Your task to perform on an android device: change timer sound Image 0: 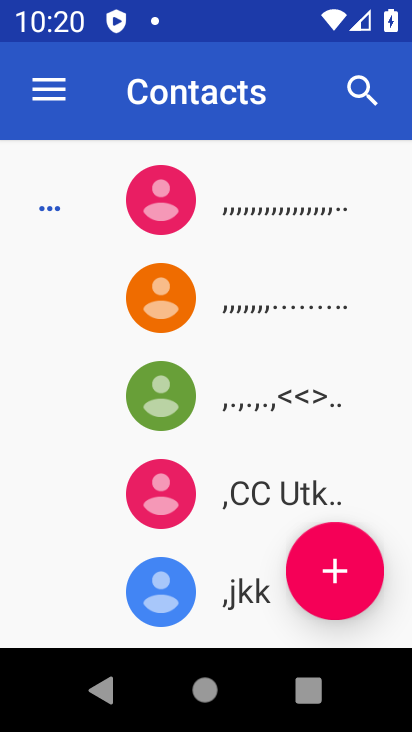
Step 0: press back button
Your task to perform on an android device: change timer sound Image 1: 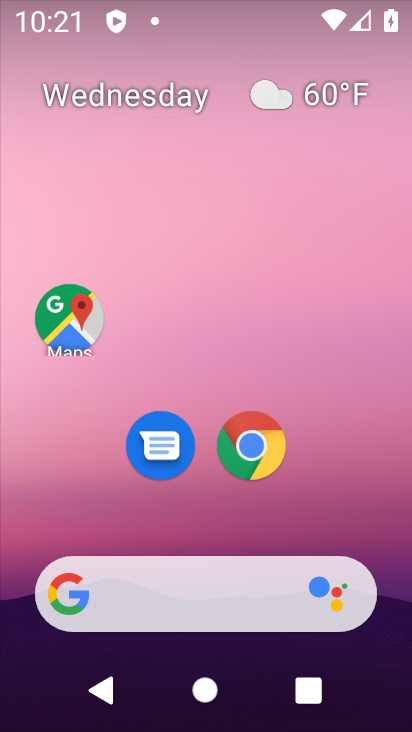
Step 1: drag from (204, 497) to (211, 211)
Your task to perform on an android device: change timer sound Image 2: 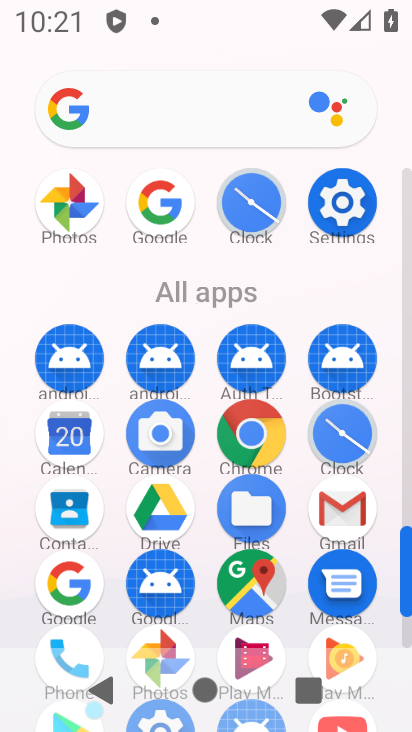
Step 2: click (256, 207)
Your task to perform on an android device: change timer sound Image 3: 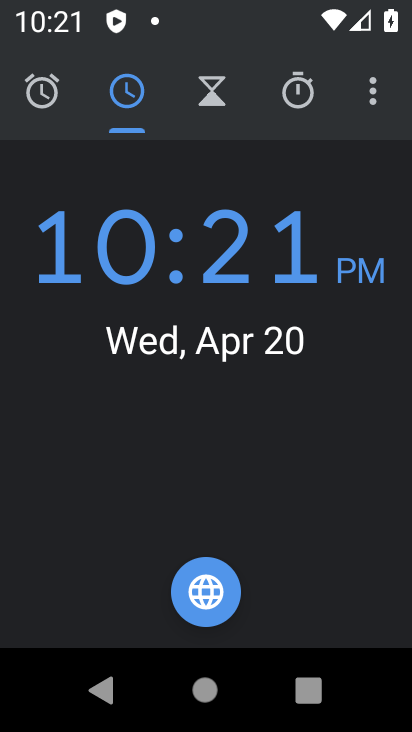
Step 3: click (369, 90)
Your task to perform on an android device: change timer sound Image 4: 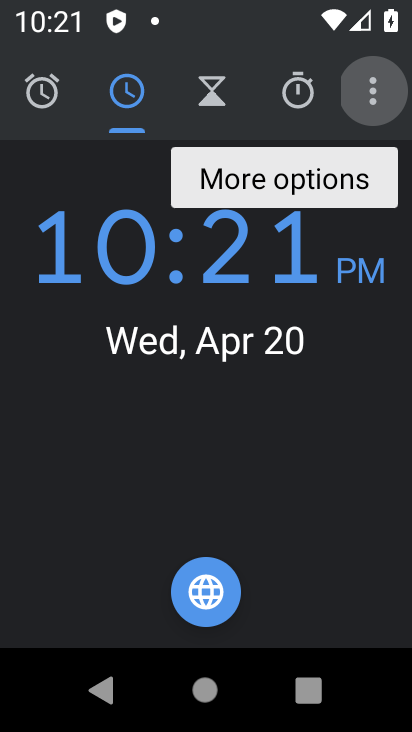
Step 4: click (368, 103)
Your task to perform on an android device: change timer sound Image 5: 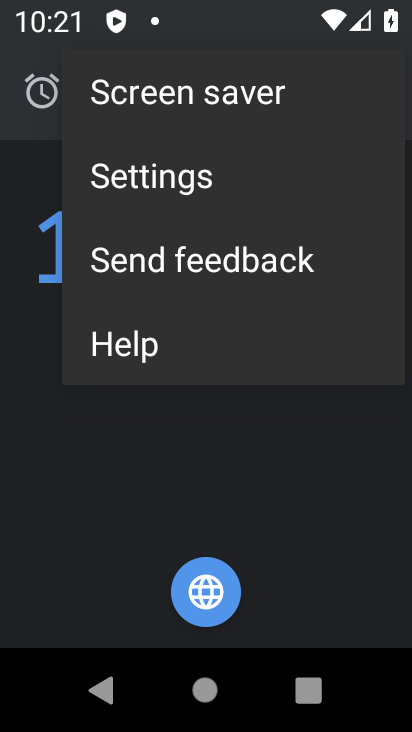
Step 5: click (173, 177)
Your task to perform on an android device: change timer sound Image 6: 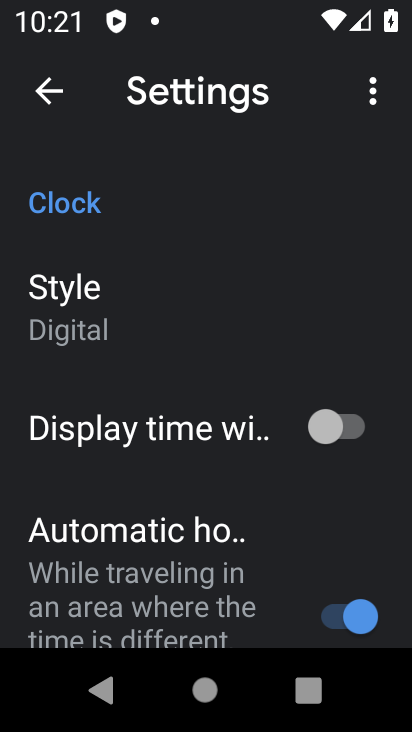
Step 6: drag from (210, 583) to (235, 259)
Your task to perform on an android device: change timer sound Image 7: 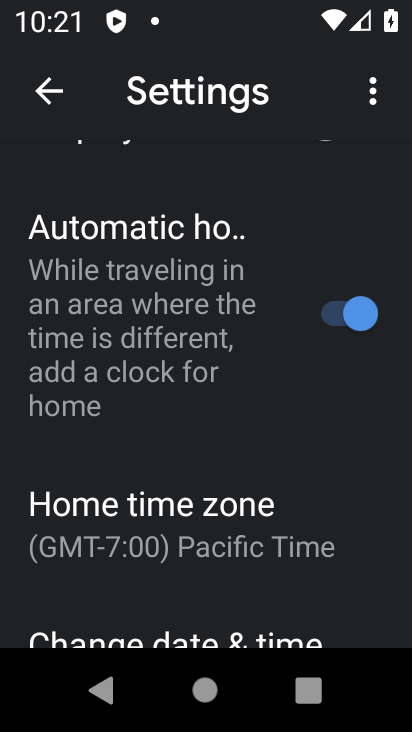
Step 7: drag from (223, 518) to (238, 162)
Your task to perform on an android device: change timer sound Image 8: 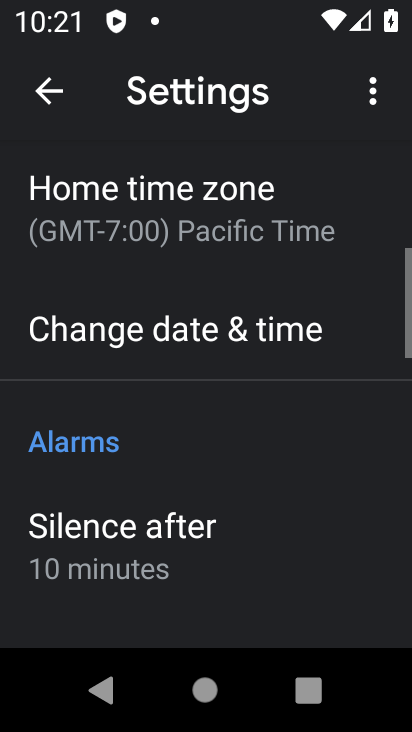
Step 8: drag from (209, 474) to (239, 231)
Your task to perform on an android device: change timer sound Image 9: 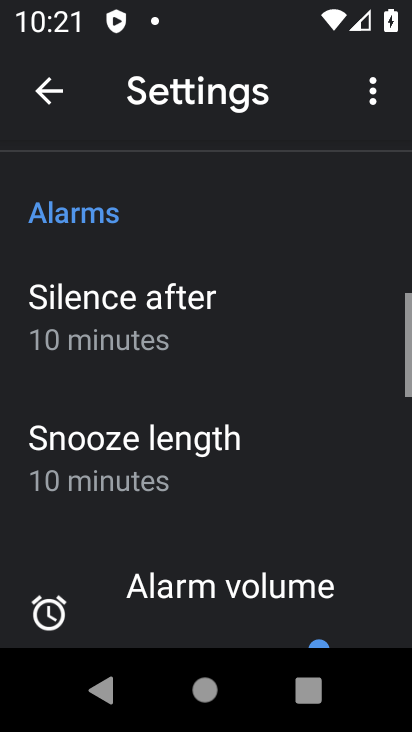
Step 9: drag from (231, 540) to (284, 250)
Your task to perform on an android device: change timer sound Image 10: 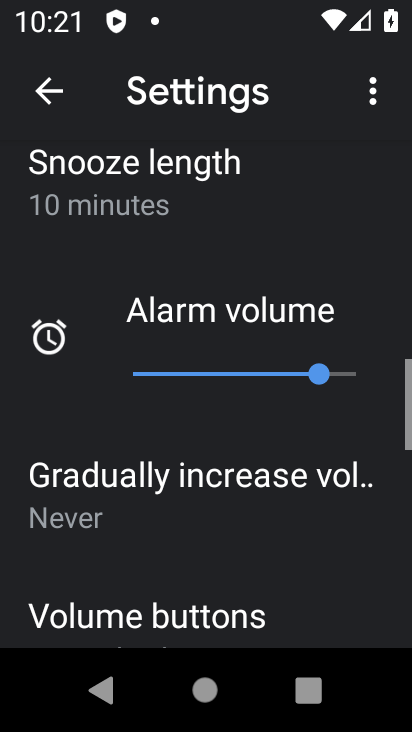
Step 10: drag from (248, 548) to (267, 293)
Your task to perform on an android device: change timer sound Image 11: 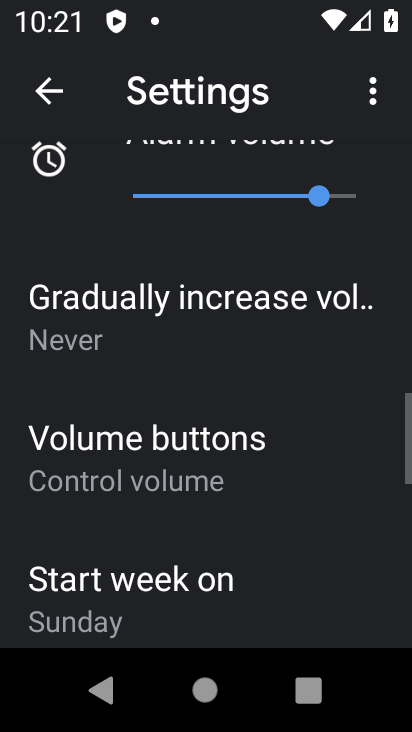
Step 11: drag from (267, 293) to (249, 576)
Your task to perform on an android device: change timer sound Image 12: 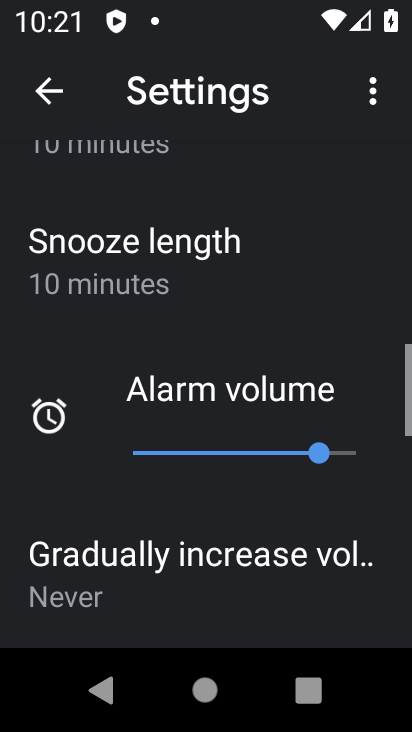
Step 12: drag from (238, 269) to (234, 514)
Your task to perform on an android device: change timer sound Image 13: 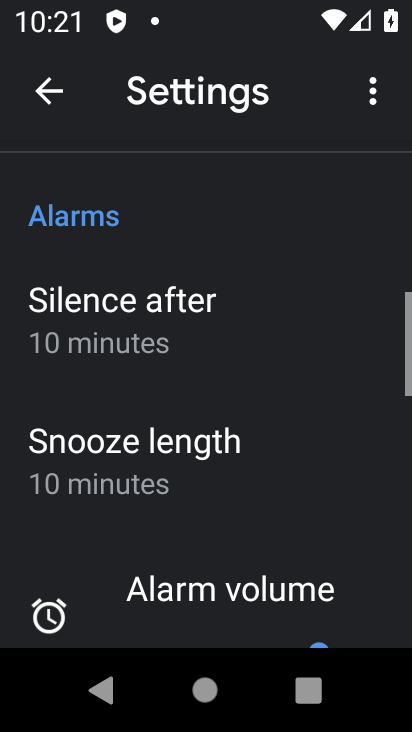
Step 13: drag from (229, 254) to (237, 491)
Your task to perform on an android device: change timer sound Image 14: 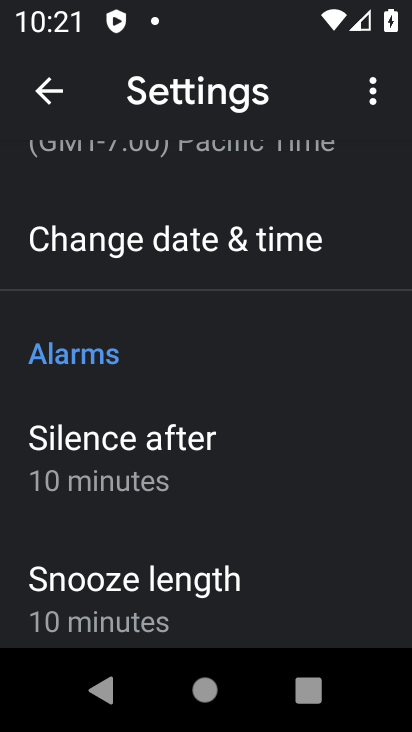
Step 14: drag from (253, 520) to (273, 181)
Your task to perform on an android device: change timer sound Image 15: 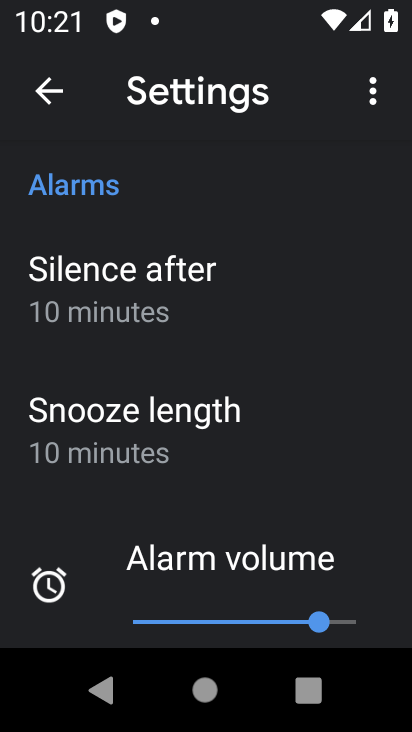
Step 15: drag from (269, 498) to (294, 212)
Your task to perform on an android device: change timer sound Image 16: 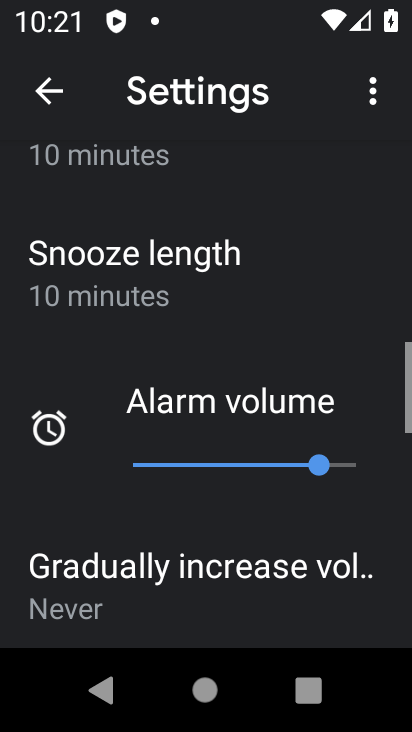
Step 16: drag from (285, 553) to (301, 275)
Your task to perform on an android device: change timer sound Image 17: 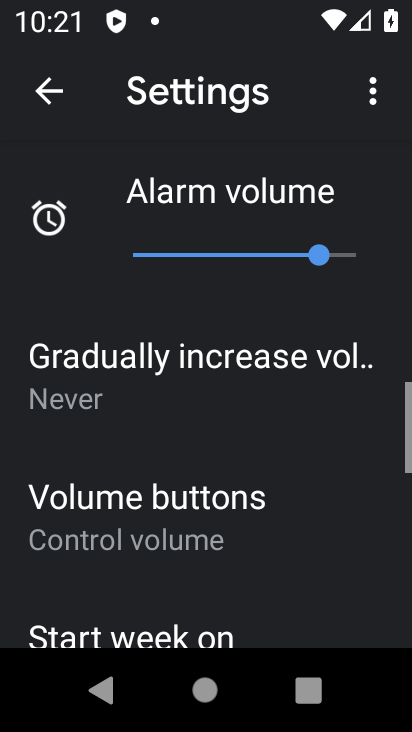
Step 17: drag from (296, 513) to (310, 256)
Your task to perform on an android device: change timer sound Image 18: 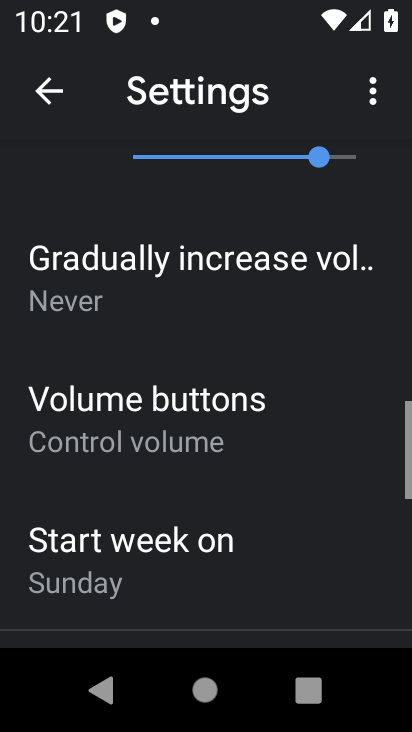
Step 18: drag from (276, 534) to (282, 250)
Your task to perform on an android device: change timer sound Image 19: 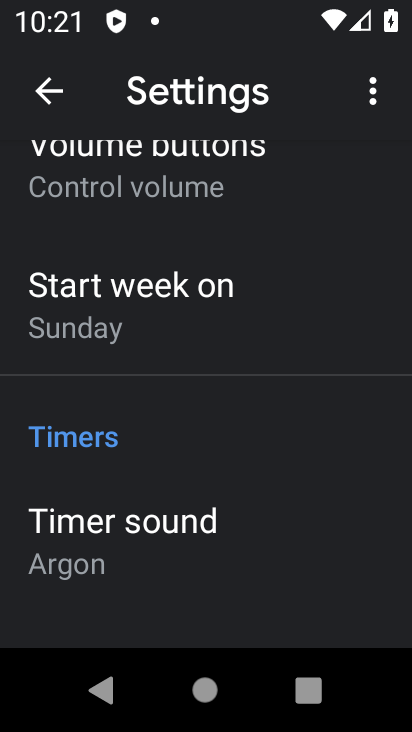
Step 19: click (213, 518)
Your task to perform on an android device: change timer sound Image 20: 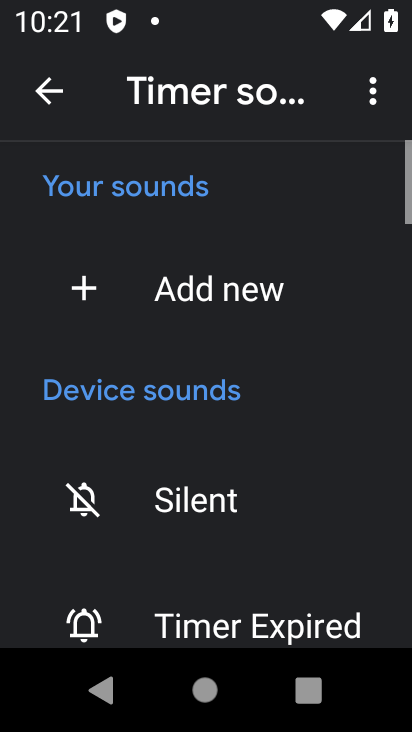
Step 20: click (225, 608)
Your task to perform on an android device: change timer sound Image 21: 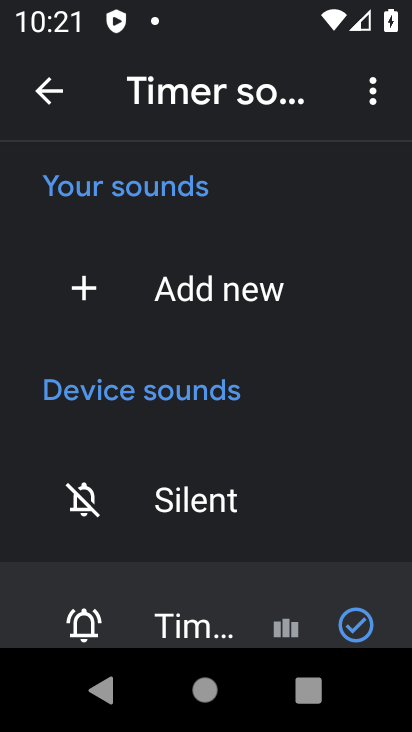
Step 21: task complete